Your task to perform on an android device: Open internet settings Image 0: 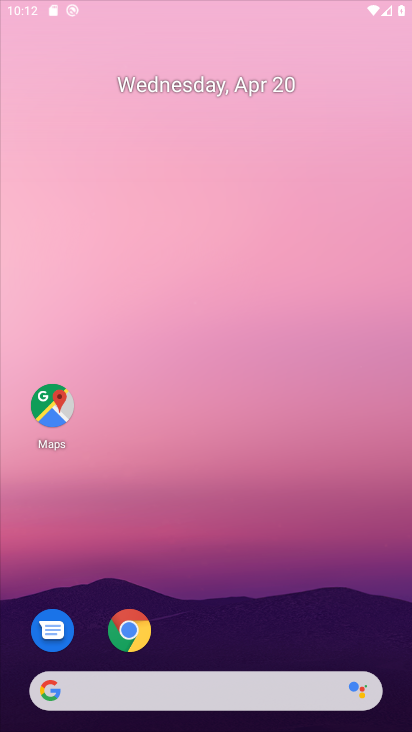
Step 0: click (263, 203)
Your task to perform on an android device: Open internet settings Image 1: 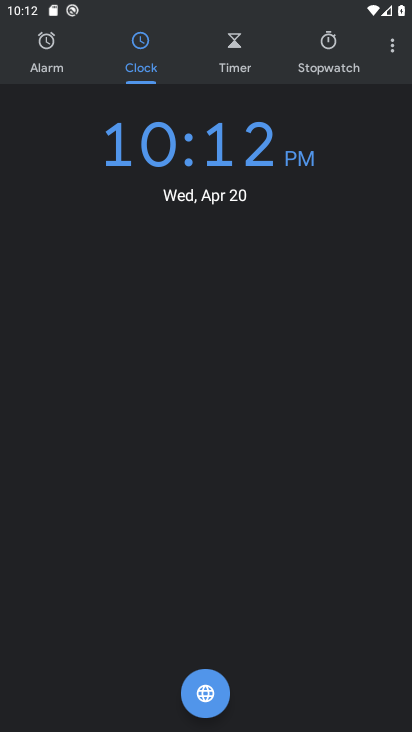
Step 1: press home button
Your task to perform on an android device: Open internet settings Image 2: 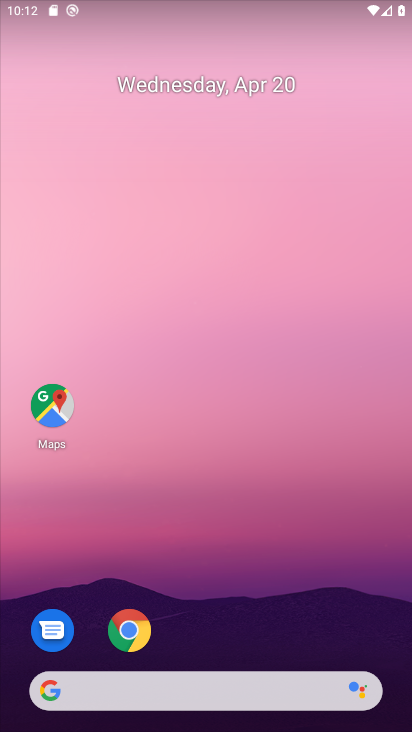
Step 2: drag from (254, 611) to (283, 252)
Your task to perform on an android device: Open internet settings Image 3: 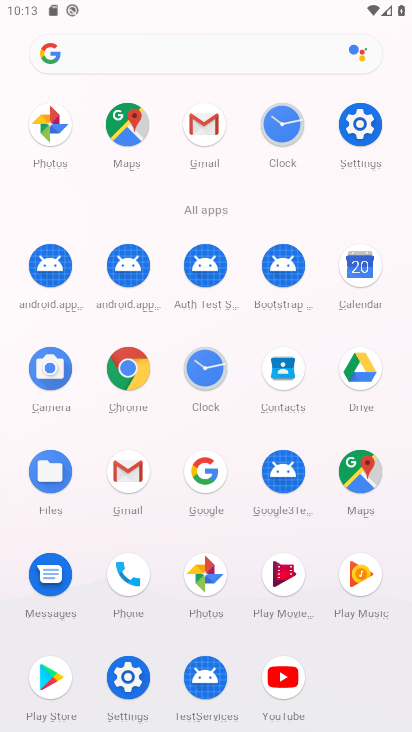
Step 3: click (352, 125)
Your task to perform on an android device: Open internet settings Image 4: 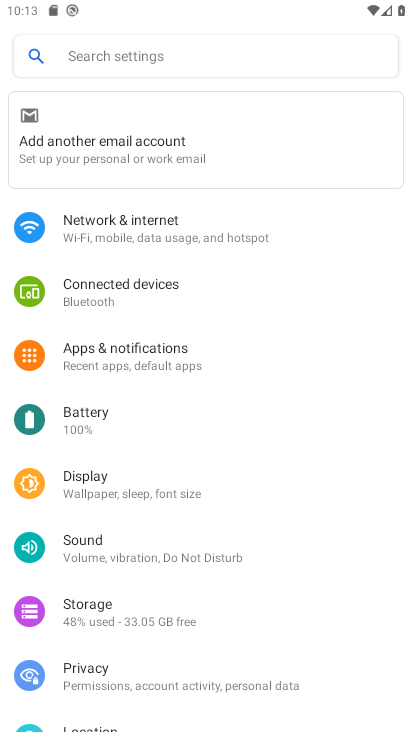
Step 4: drag from (160, 131) to (155, 237)
Your task to perform on an android device: Open internet settings Image 5: 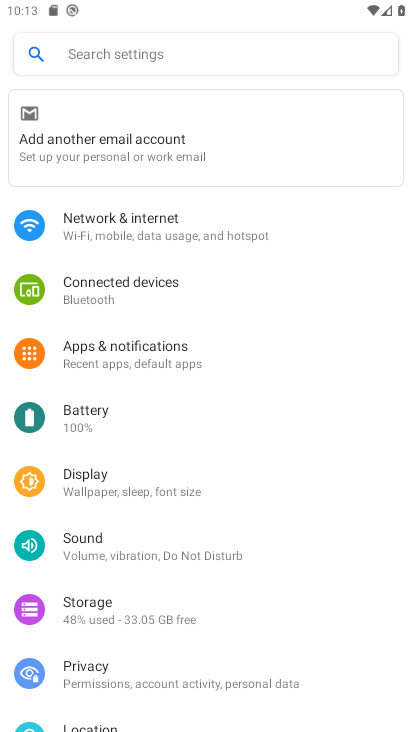
Step 5: click (159, 231)
Your task to perform on an android device: Open internet settings Image 6: 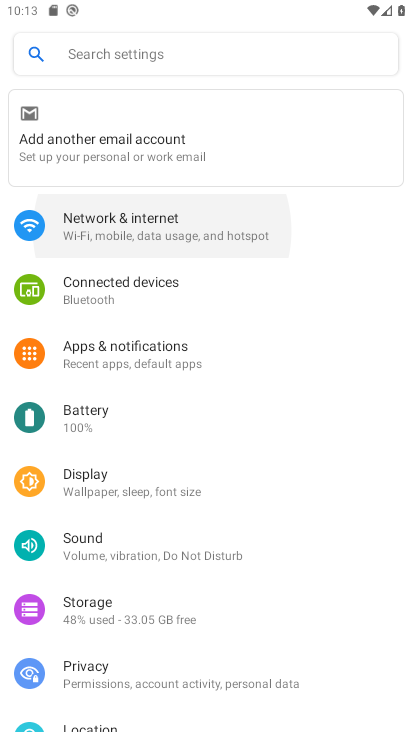
Step 6: click (161, 230)
Your task to perform on an android device: Open internet settings Image 7: 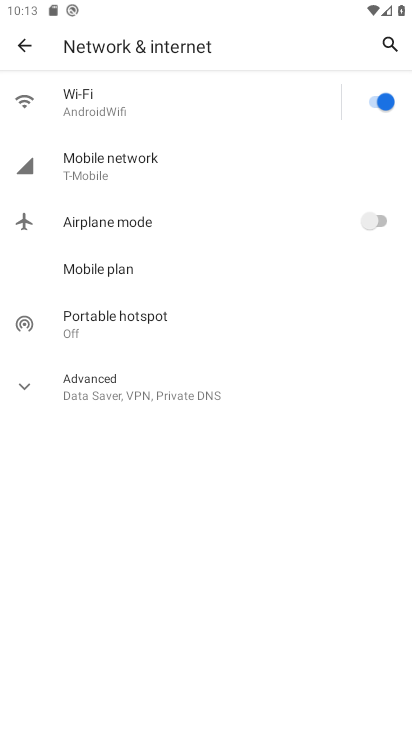
Step 7: click (133, 167)
Your task to perform on an android device: Open internet settings Image 8: 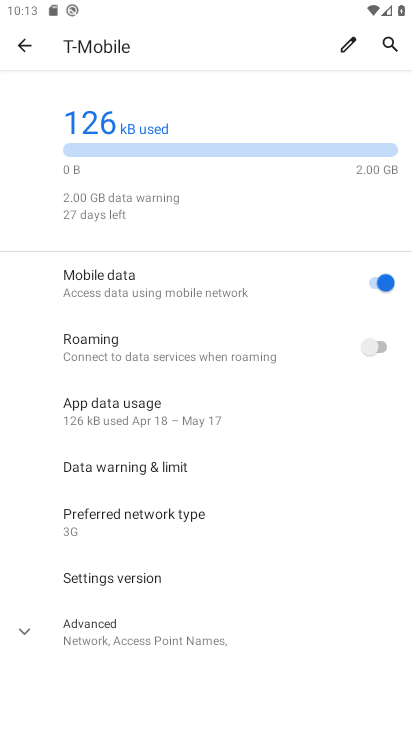
Step 8: task complete